Your task to perform on an android device: Open my contact list Image 0: 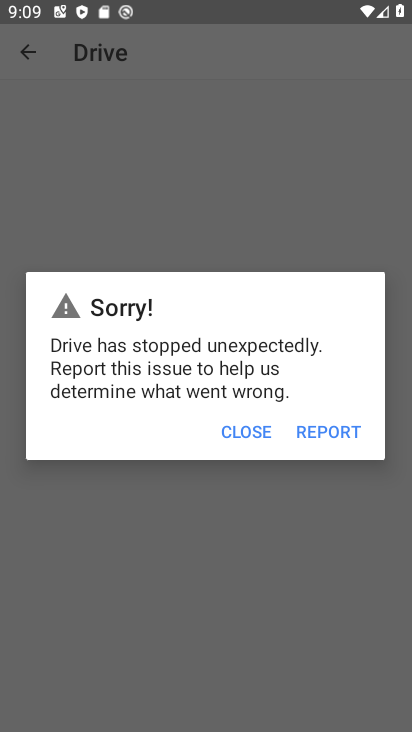
Step 0: press home button
Your task to perform on an android device: Open my contact list Image 1: 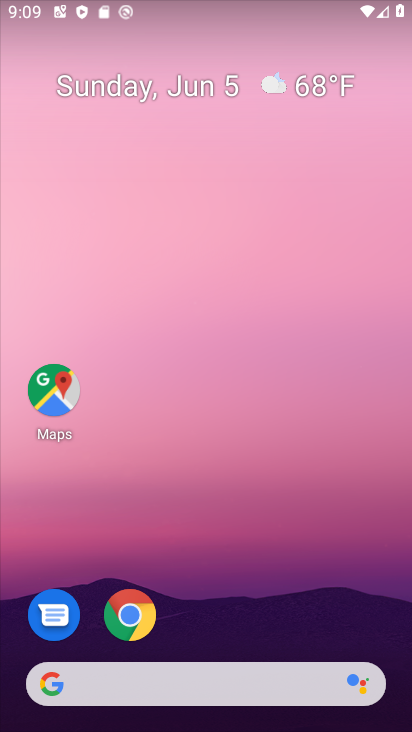
Step 1: drag from (186, 686) to (206, 306)
Your task to perform on an android device: Open my contact list Image 2: 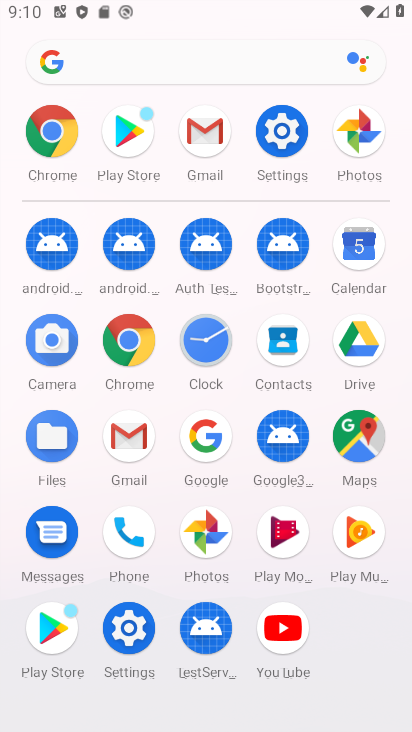
Step 2: click (291, 332)
Your task to perform on an android device: Open my contact list Image 3: 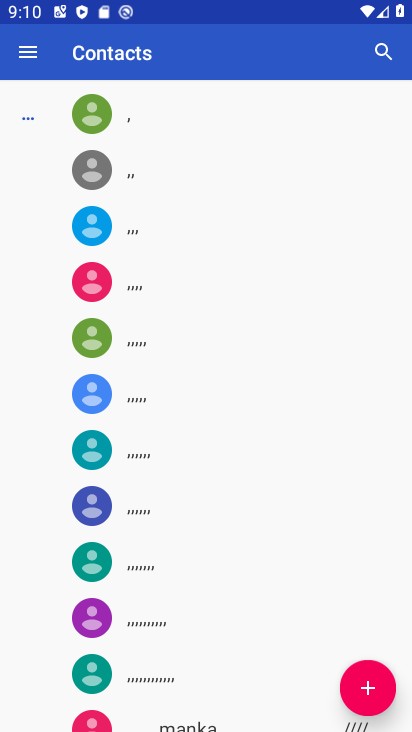
Step 3: task complete